Your task to perform on an android device: What is the news today? Image 0: 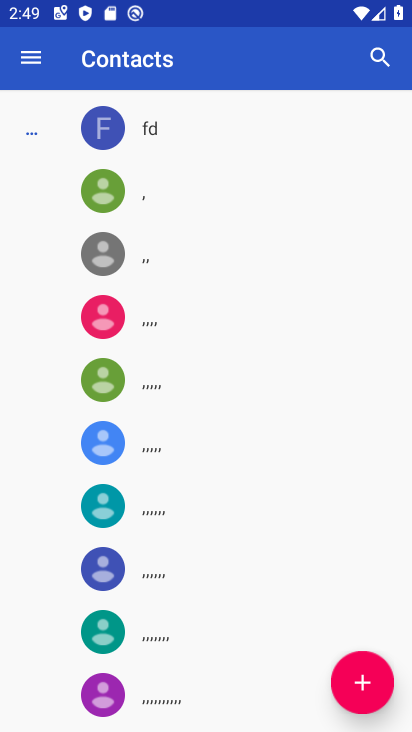
Step 0: press home button
Your task to perform on an android device: What is the news today? Image 1: 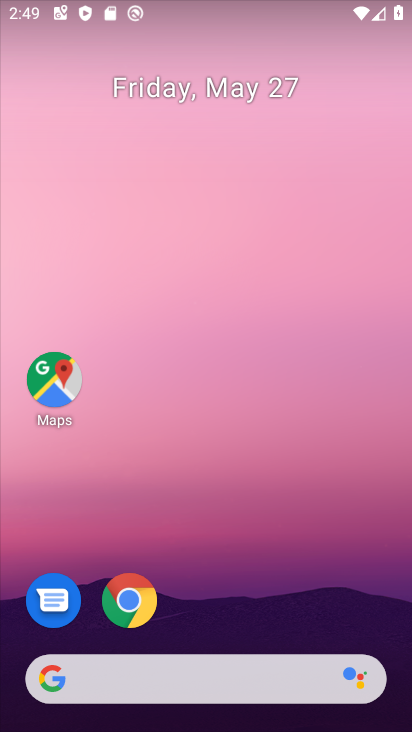
Step 1: task complete